Your task to perform on an android device: Open Google Maps Image 0: 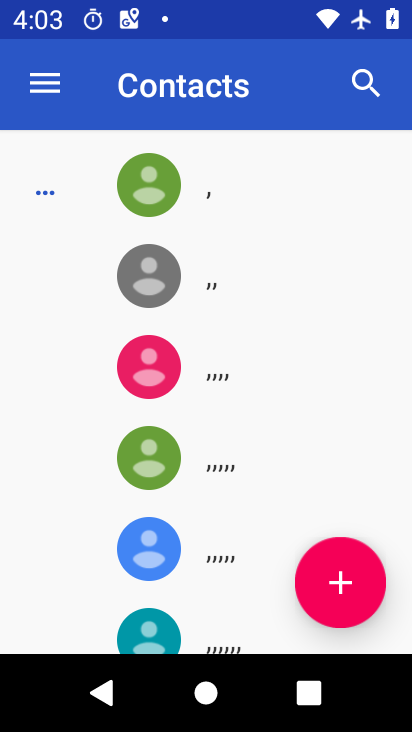
Step 0: press home button
Your task to perform on an android device: Open Google Maps Image 1: 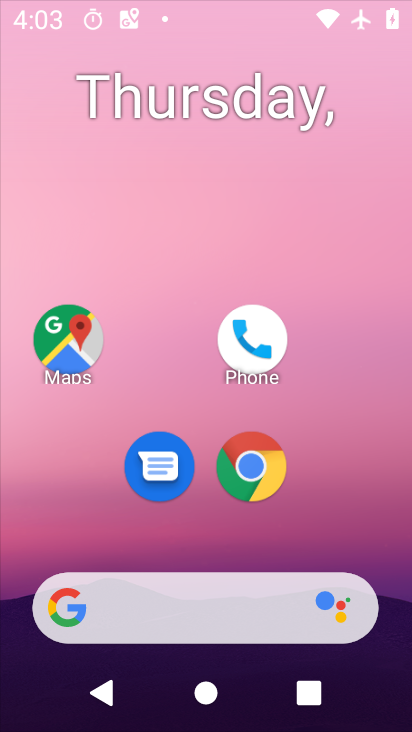
Step 1: drag from (183, 606) to (242, 135)
Your task to perform on an android device: Open Google Maps Image 2: 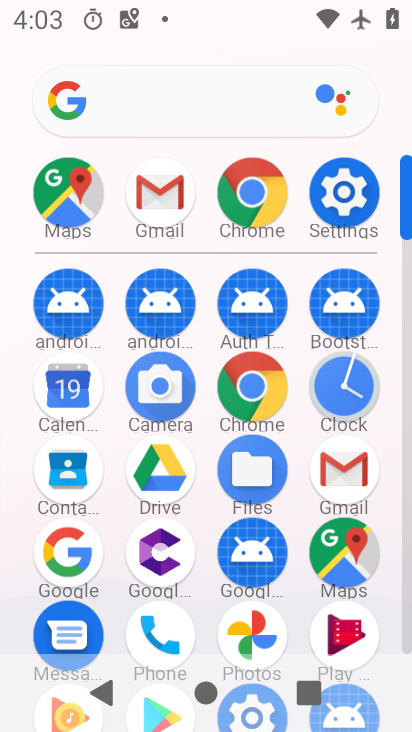
Step 2: drag from (206, 613) to (206, 307)
Your task to perform on an android device: Open Google Maps Image 3: 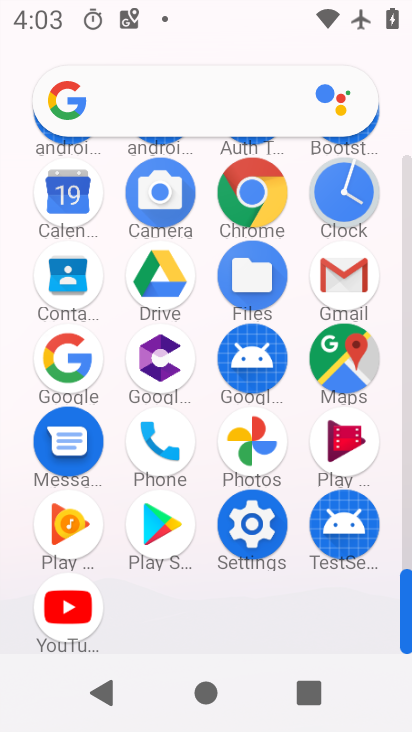
Step 3: click (346, 351)
Your task to perform on an android device: Open Google Maps Image 4: 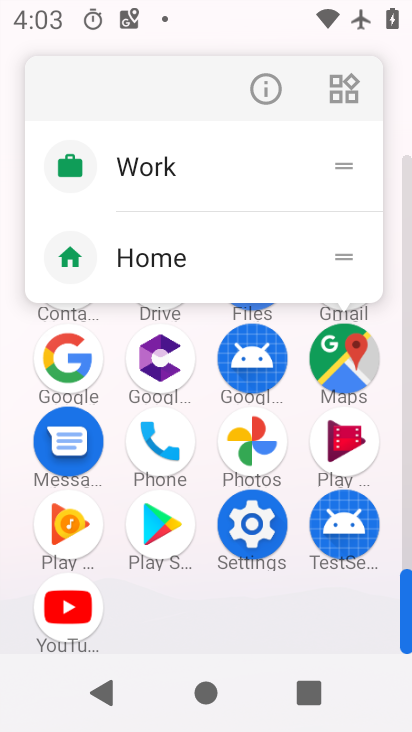
Step 4: click (265, 95)
Your task to perform on an android device: Open Google Maps Image 5: 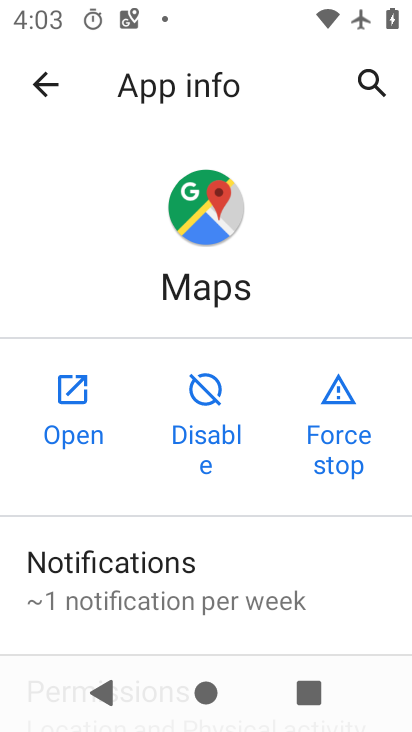
Step 5: click (92, 375)
Your task to perform on an android device: Open Google Maps Image 6: 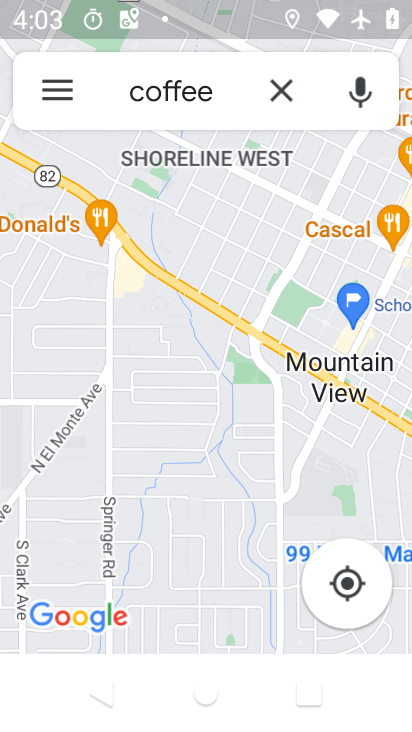
Step 6: task complete